Your task to perform on an android device: Open Google Chrome Image 0: 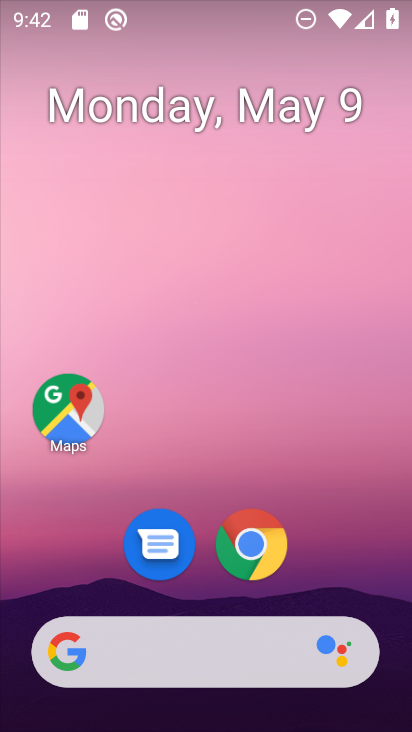
Step 0: click (246, 548)
Your task to perform on an android device: Open Google Chrome Image 1: 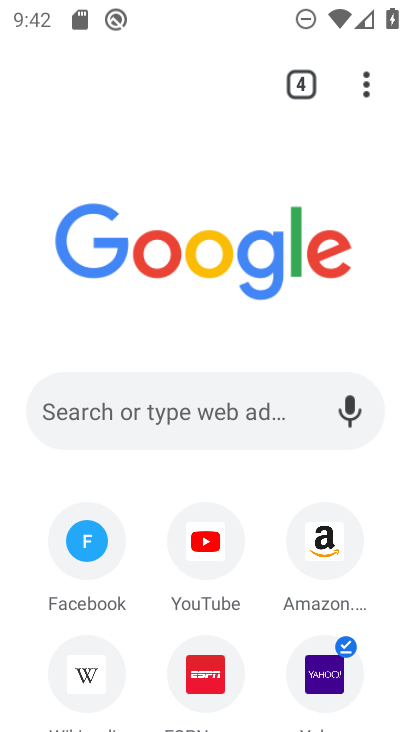
Step 1: task complete